Your task to perform on an android device: Open privacy settings Image 0: 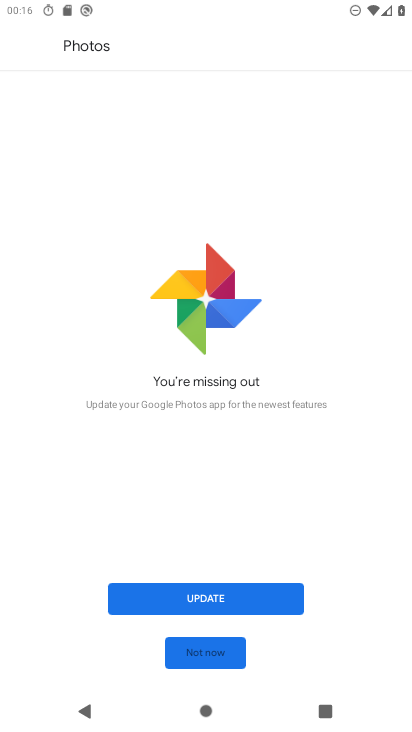
Step 0: press home button
Your task to perform on an android device: Open privacy settings Image 1: 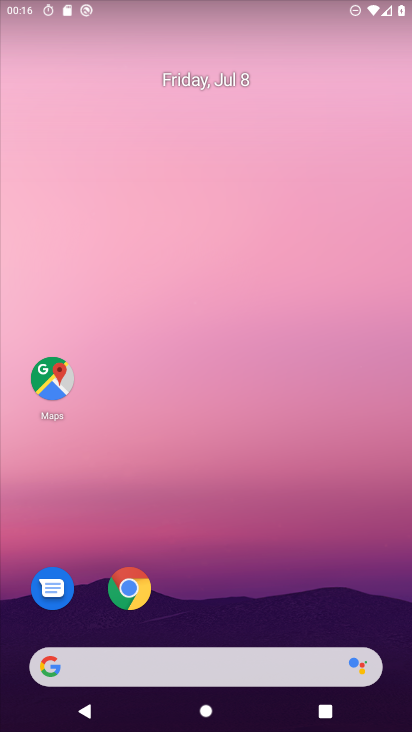
Step 1: drag from (309, 591) to (259, 114)
Your task to perform on an android device: Open privacy settings Image 2: 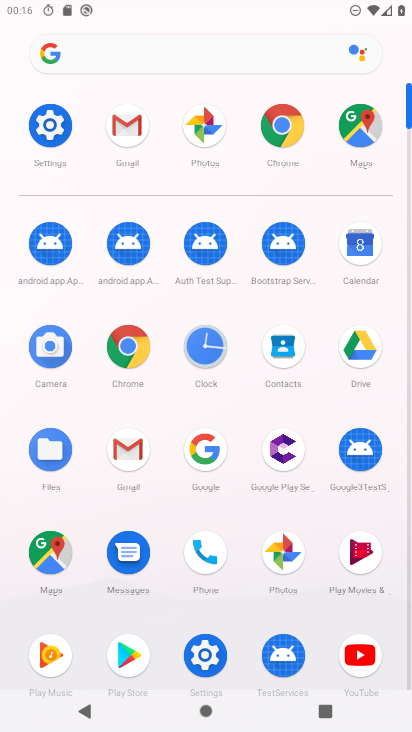
Step 2: click (57, 125)
Your task to perform on an android device: Open privacy settings Image 3: 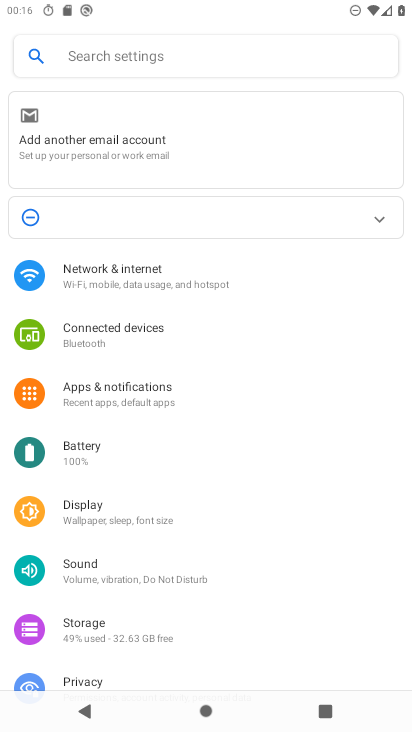
Step 3: drag from (206, 584) to (294, 190)
Your task to perform on an android device: Open privacy settings Image 4: 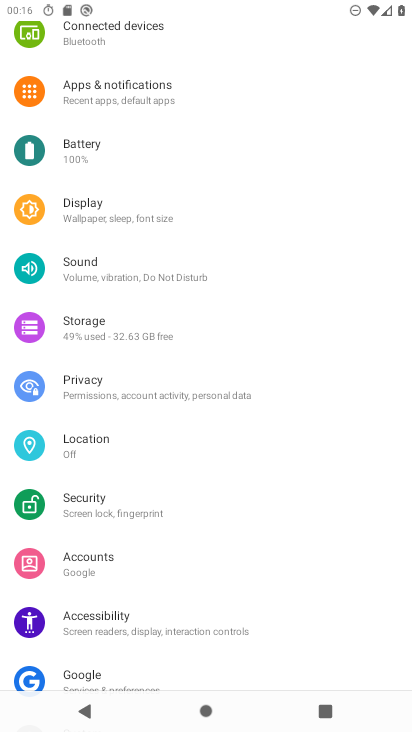
Step 4: click (109, 391)
Your task to perform on an android device: Open privacy settings Image 5: 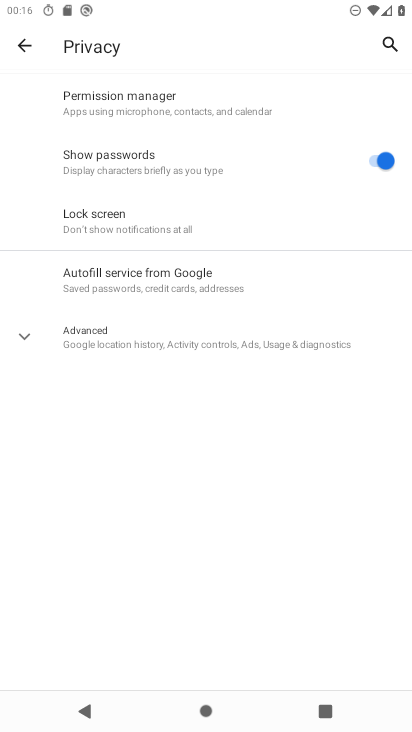
Step 5: task complete